Your task to perform on an android device: Open location settings Image 0: 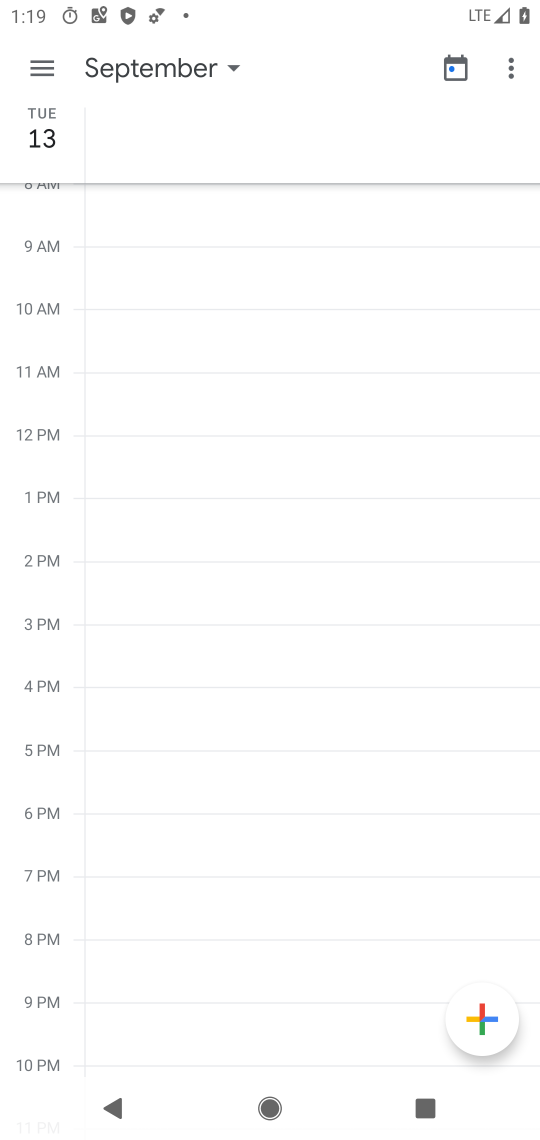
Step 0: press home button
Your task to perform on an android device: Open location settings Image 1: 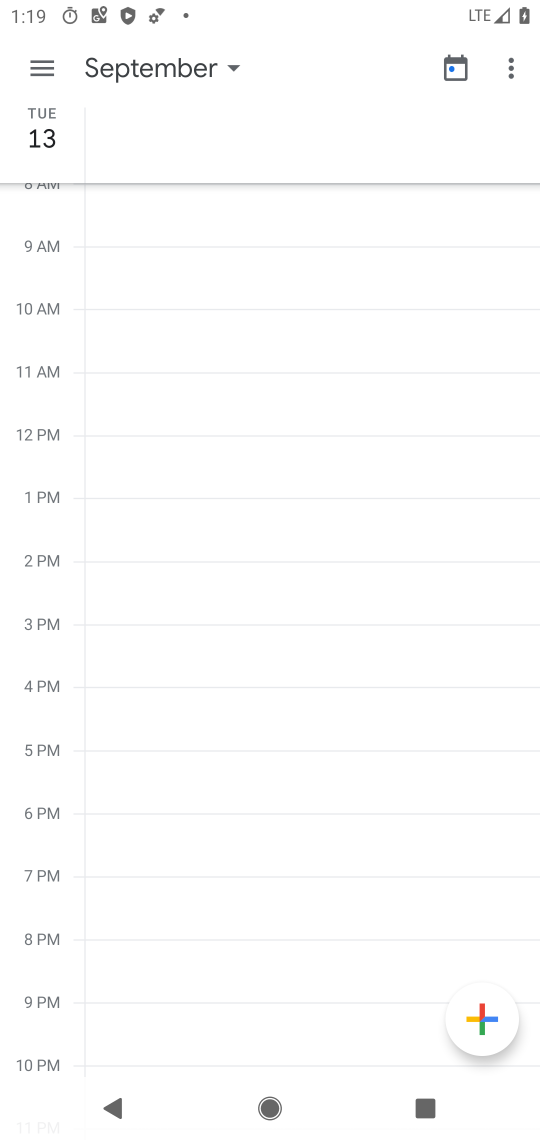
Step 1: press home button
Your task to perform on an android device: Open location settings Image 2: 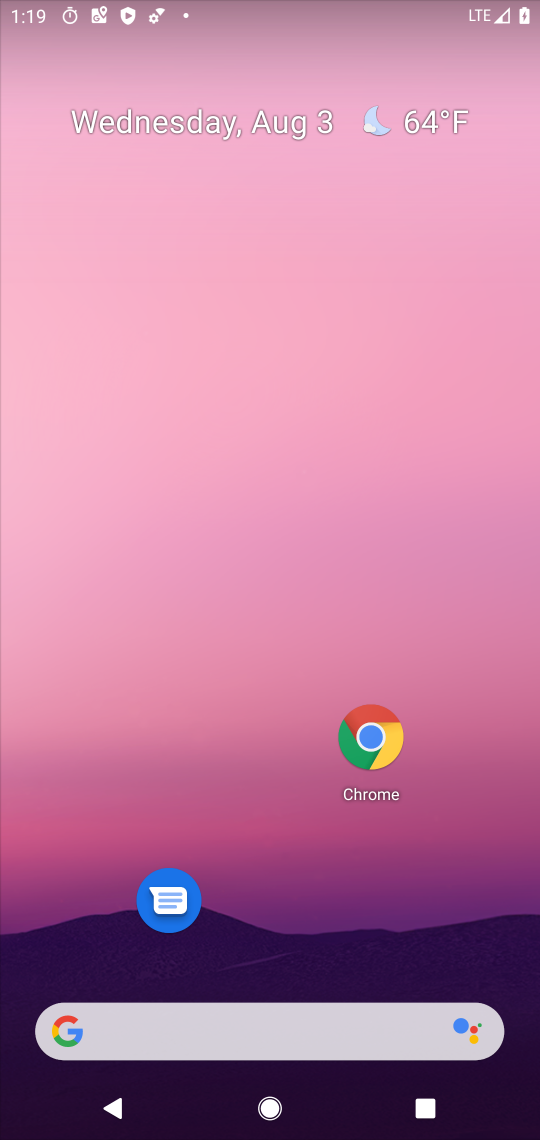
Step 2: drag from (318, 966) to (263, 302)
Your task to perform on an android device: Open location settings Image 3: 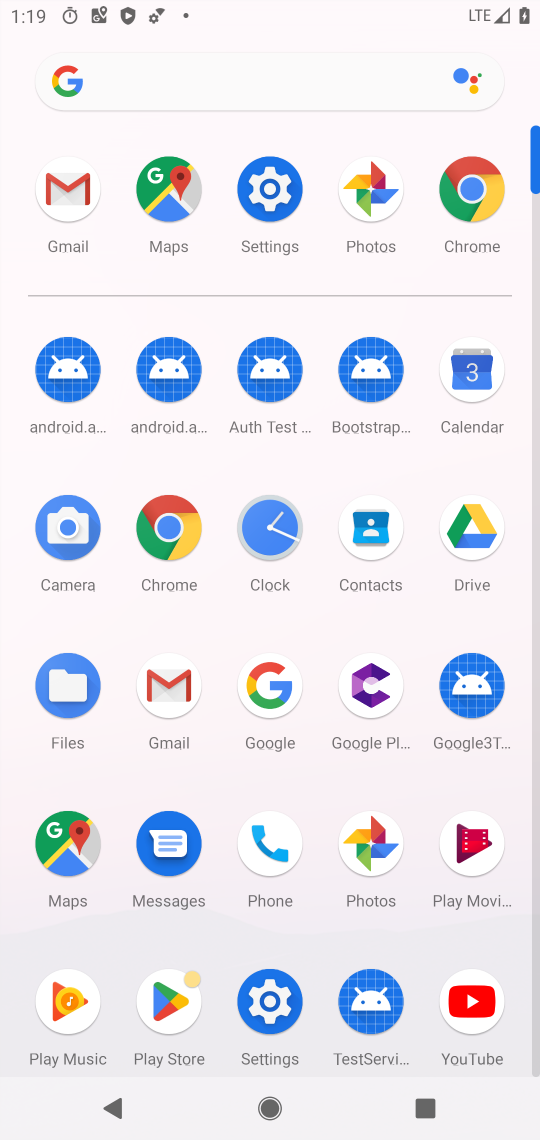
Step 3: click (270, 187)
Your task to perform on an android device: Open location settings Image 4: 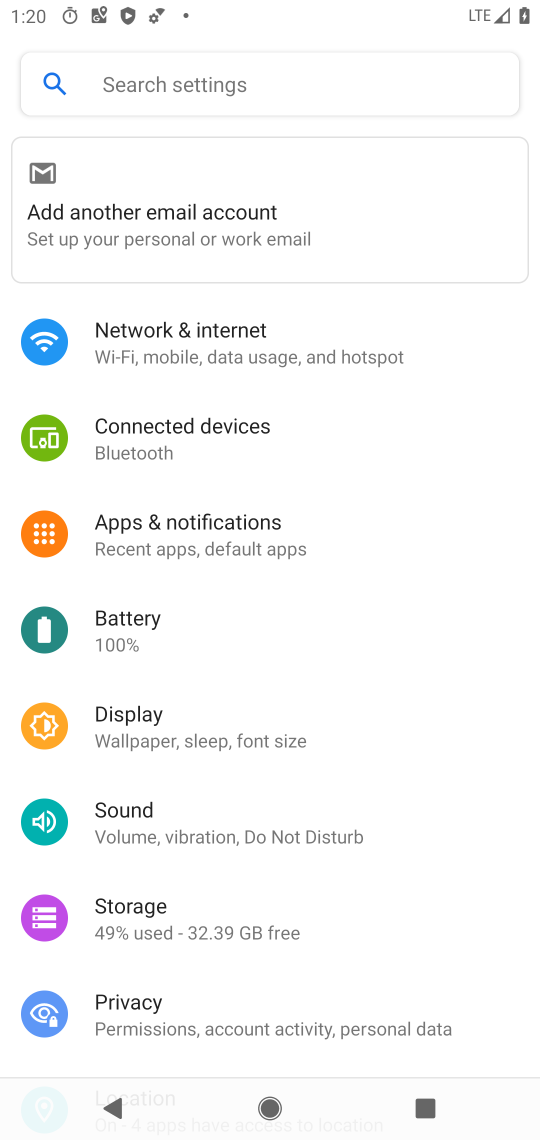
Step 4: drag from (335, 928) to (343, 198)
Your task to perform on an android device: Open location settings Image 5: 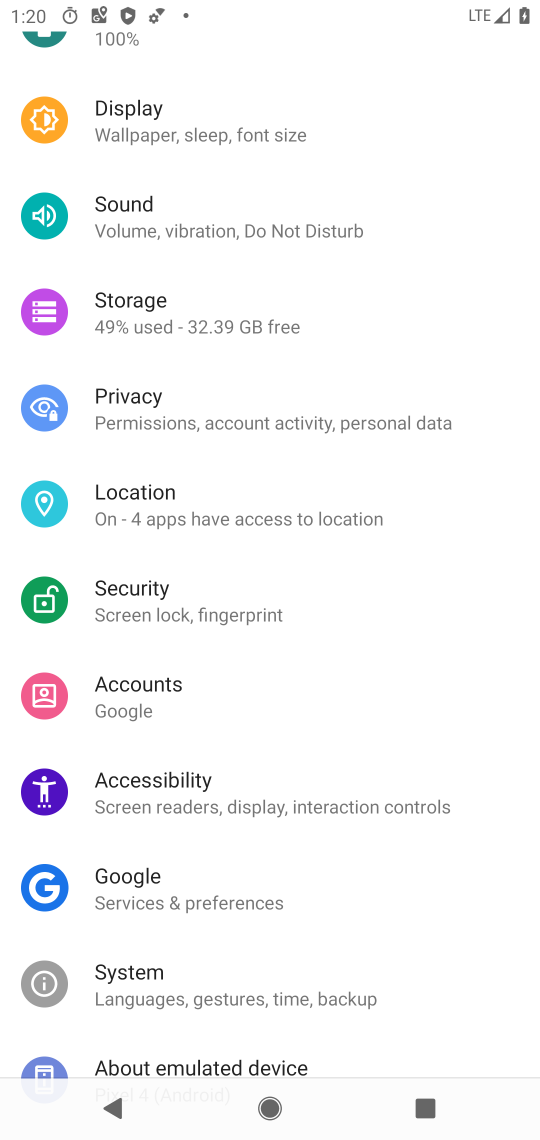
Step 5: click (153, 484)
Your task to perform on an android device: Open location settings Image 6: 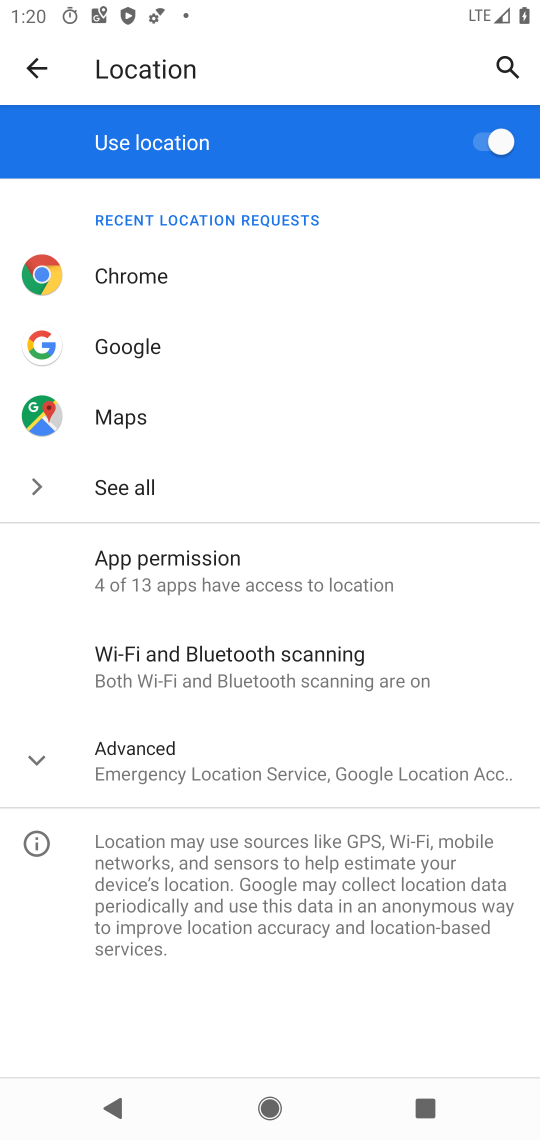
Step 6: task complete